Your task to perform on an android device: Add "macbook pro" to the cart on costco Image 0: 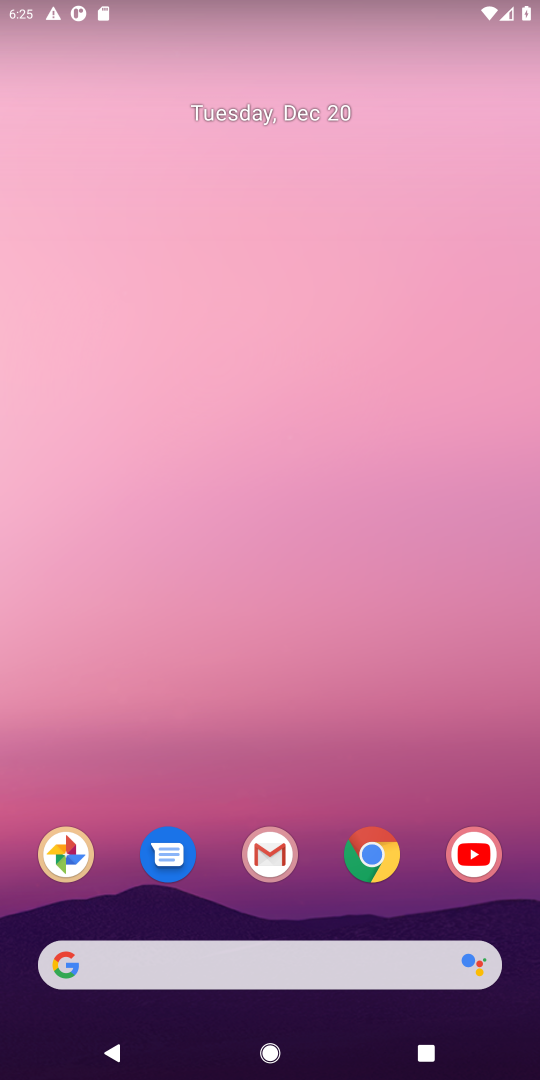
Step 0: click (375, 868)
Your task to perform on an android device: Add "macbook pro" to the cart on costco Image 1: 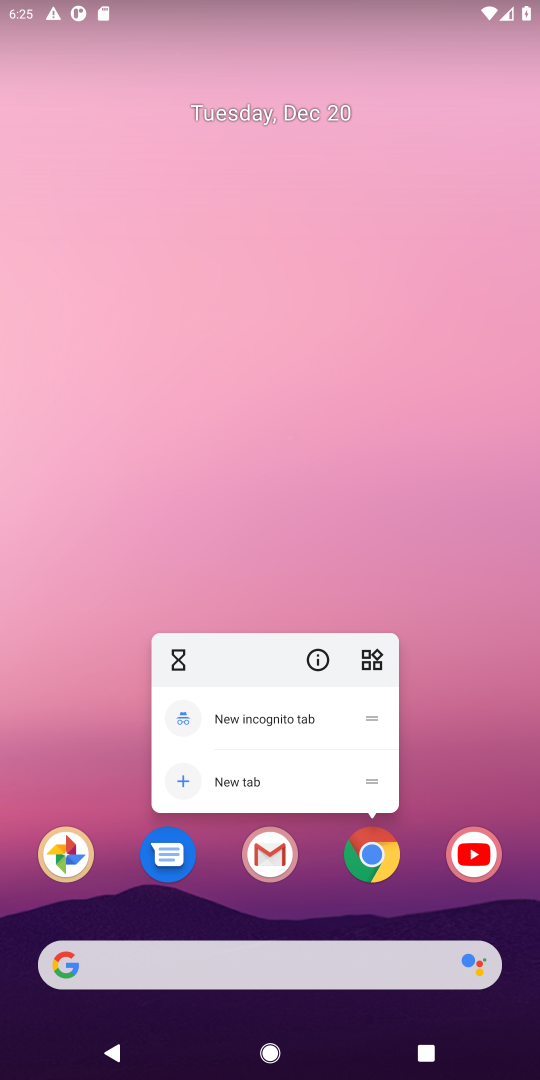
Step 1: click (373, 862)
Your task to perform on an android device: Add "macbook pro" to the cart on costco Image 2: 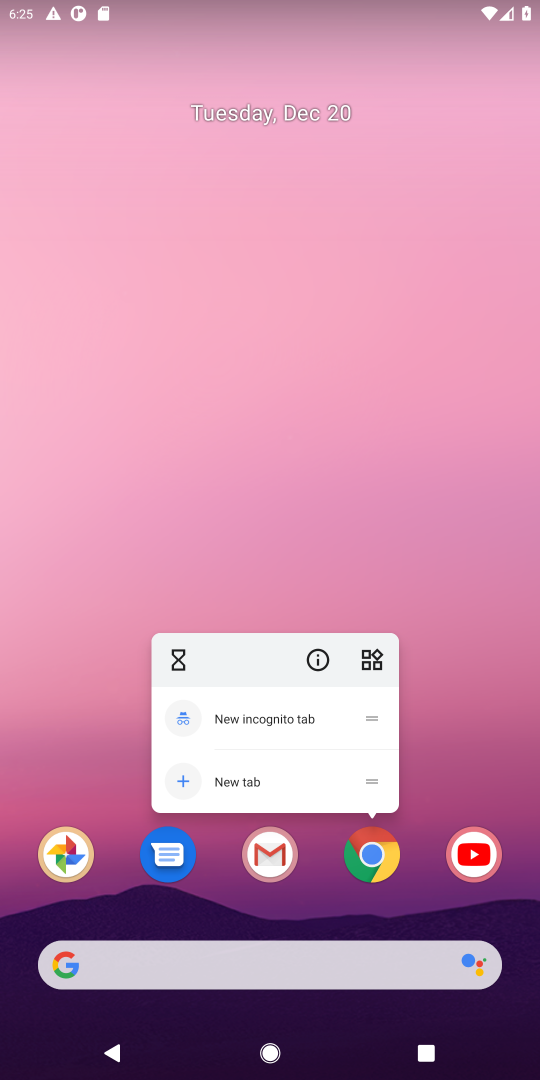
Step 2: click (373, 862)
Your task to perform on an android device: Add "macbook pro" to the cart on costco Image 3: 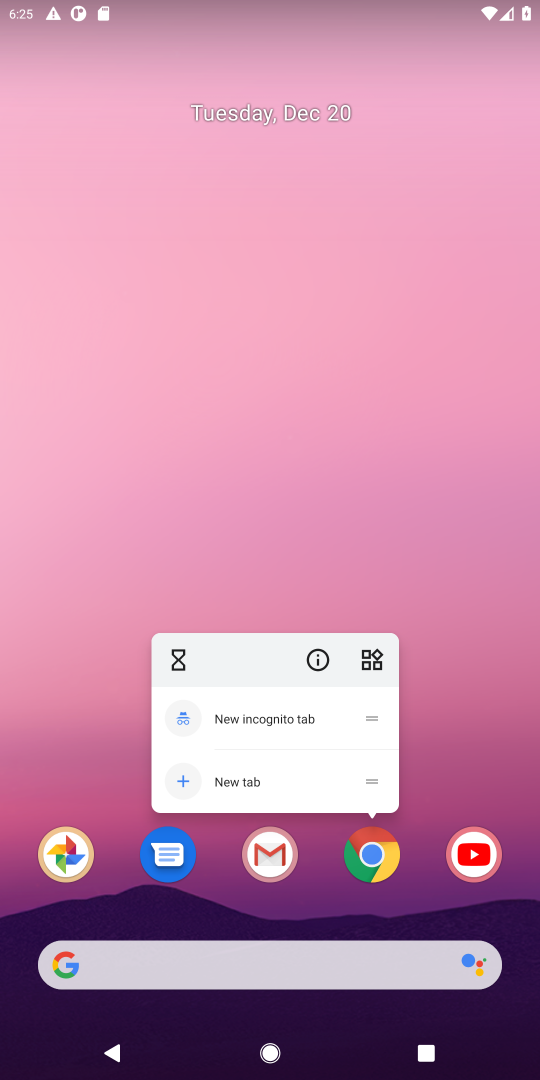
Step 3: click (373, 862)
Your task to perform on an android device: Add "macbook pro" to the cart on costco Image 4: 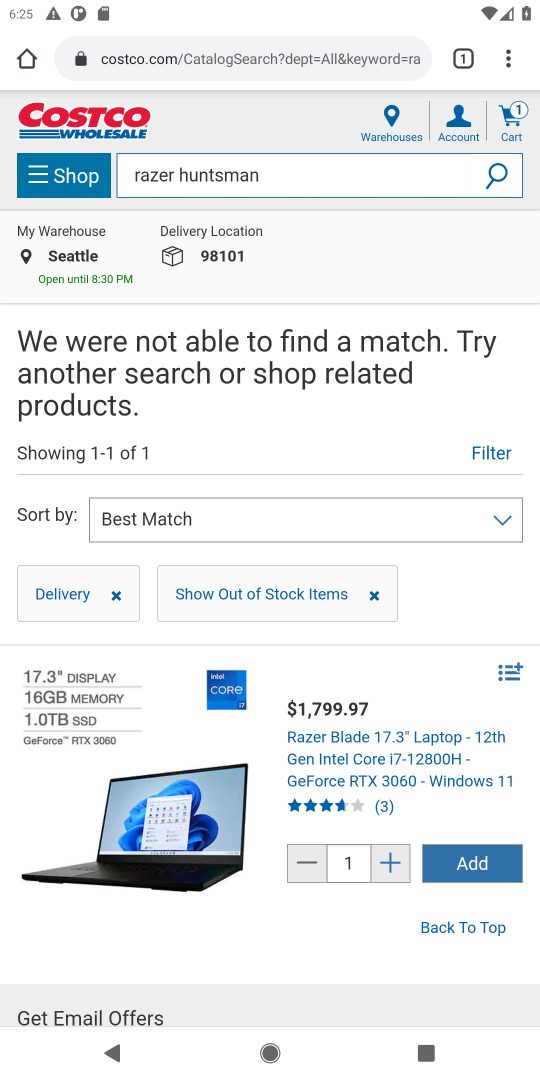
Step 4: click (197, 180)
Your task to perform on an android device: Add "macbook pro" to the cart on costco Image 5: 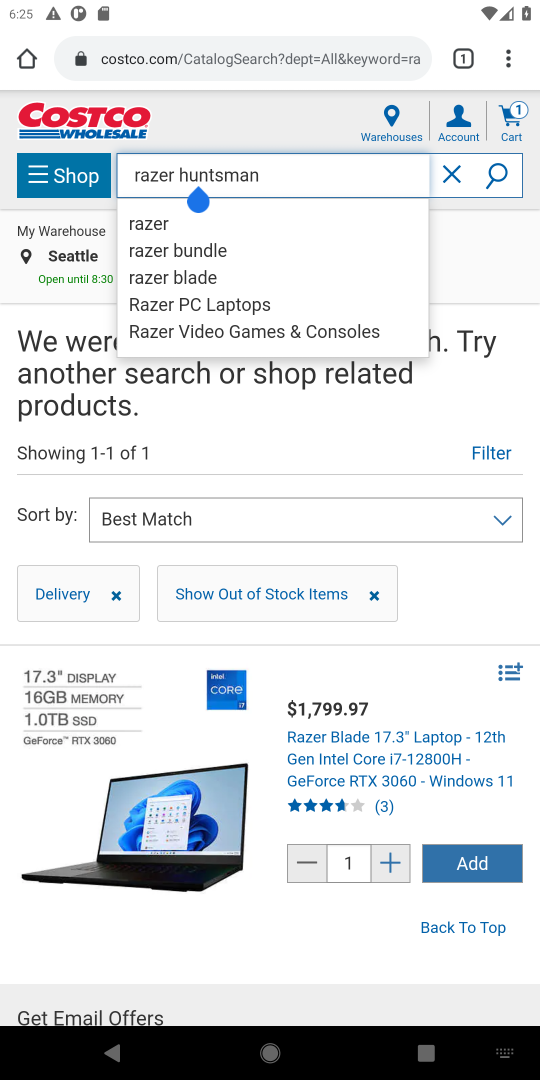
Step 5: click (452, 168)
Your task to perform on an android device: Add "macbook pro" to the cart on costco Image 6: 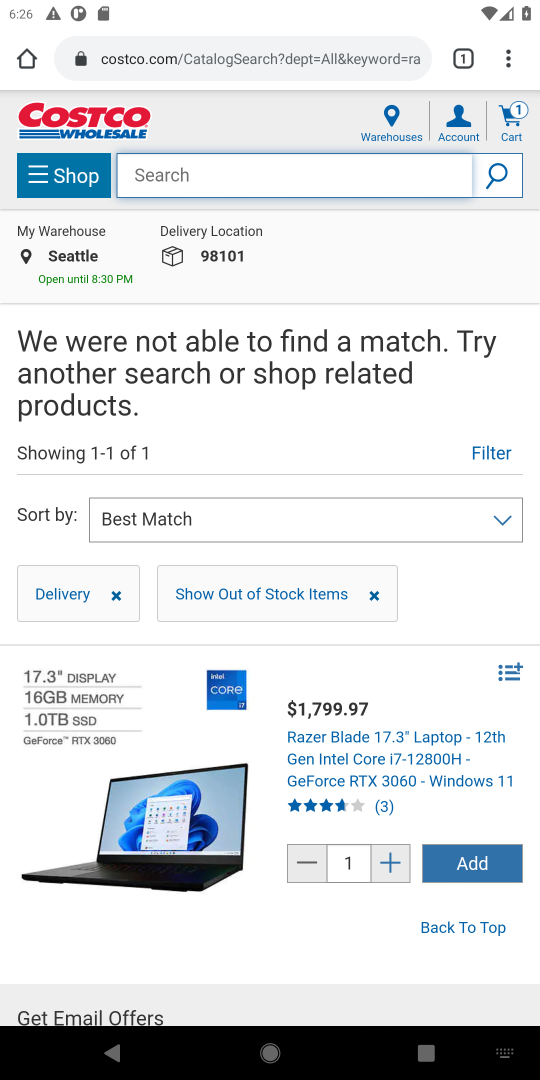
Step 6: type "macbook pro"
Your task to perform on an android device: Add "macbook pro" to the cart on costco Image 7: 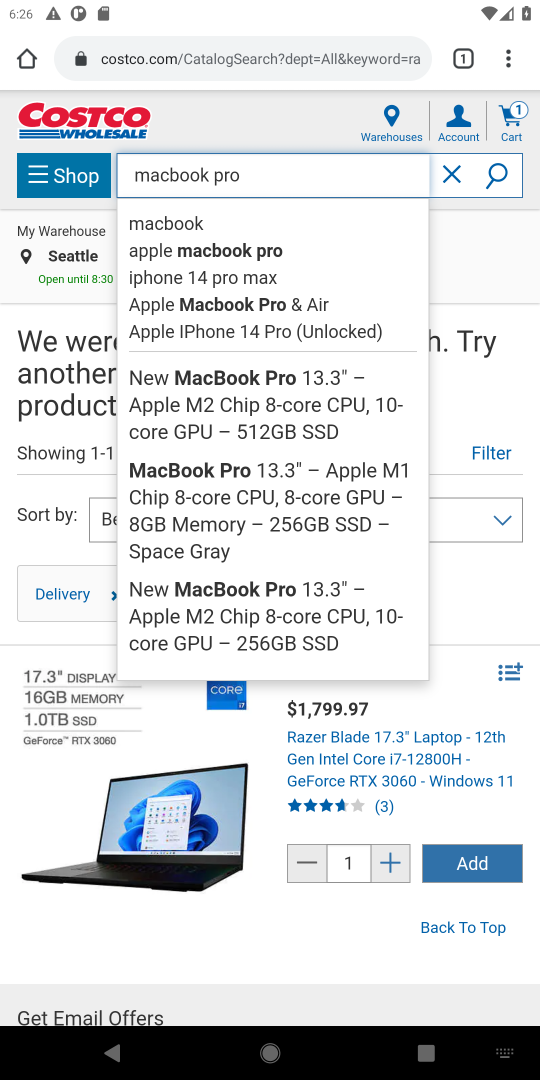
Step 7: click (490, 186)
Your task to perform on an android device: Add "macbook pro" to the cart on costco Image 8: 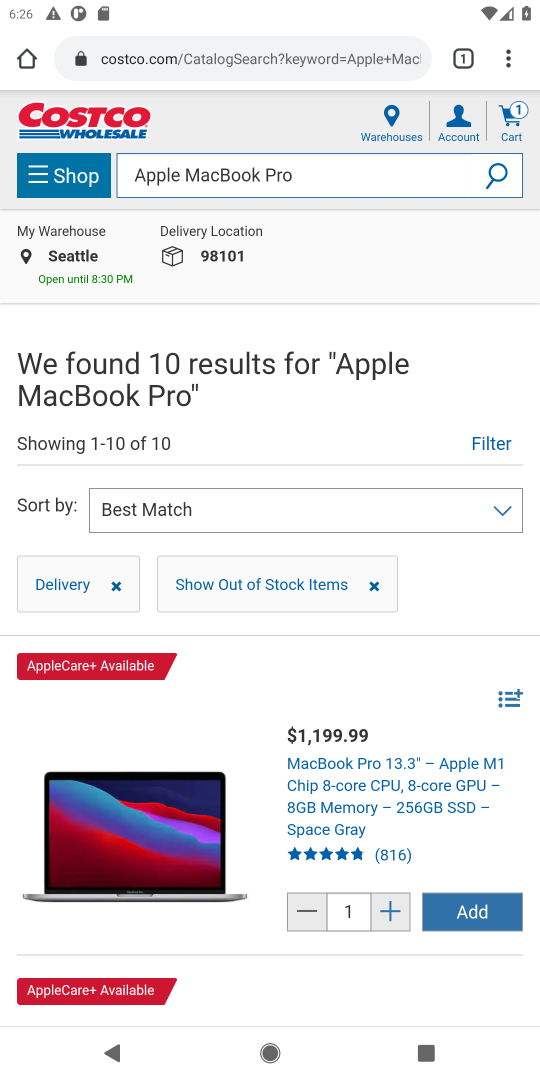
Step 8: click (490, 908)
Your task to perform on an android device: Add "macbook pro" to the cart on costco Image 9: 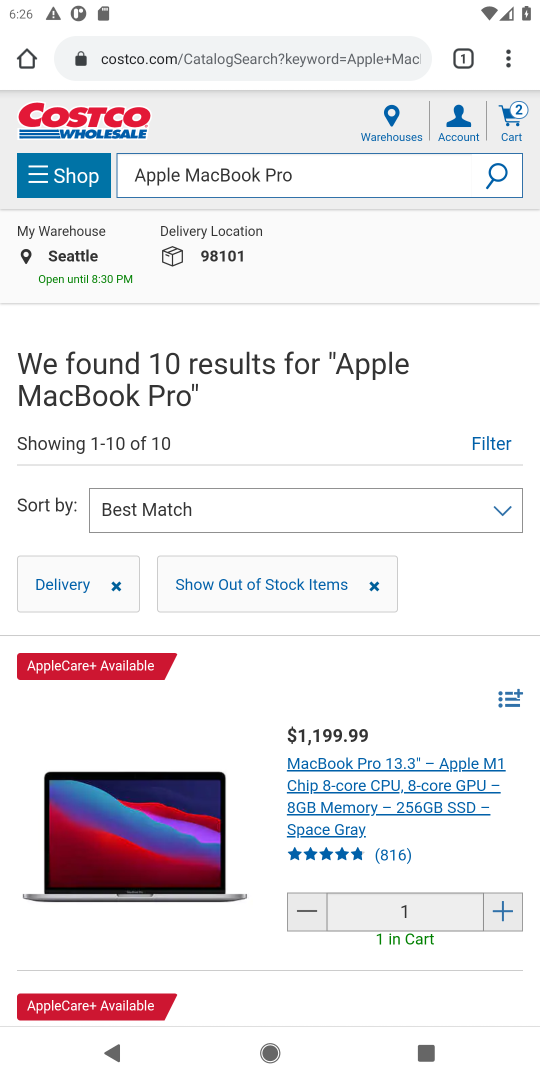
Step 9: task complete